Your task to perform on an android device: add a contact Image 0: 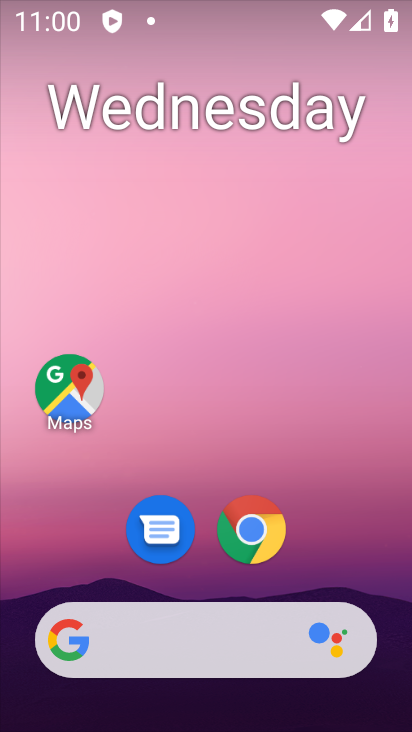
Step 0: drag from (387, 592) to (392, 239)
Your task to perform on an android device: add a contact Image 1: 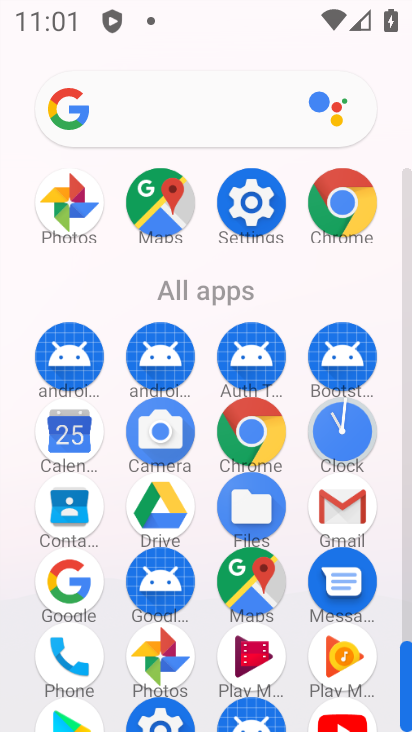
Step 1: click (75, 523)
Your task to perform on an android device: add a contact Image 2: 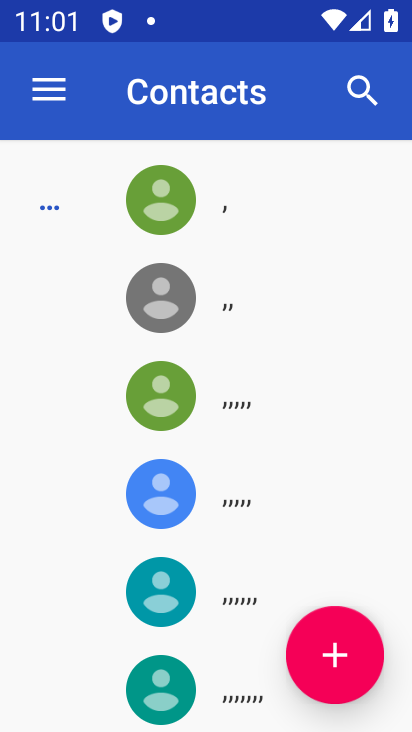
Step 2: click (329, 653)
Your task to perform on an android device: add a contact Image 3: 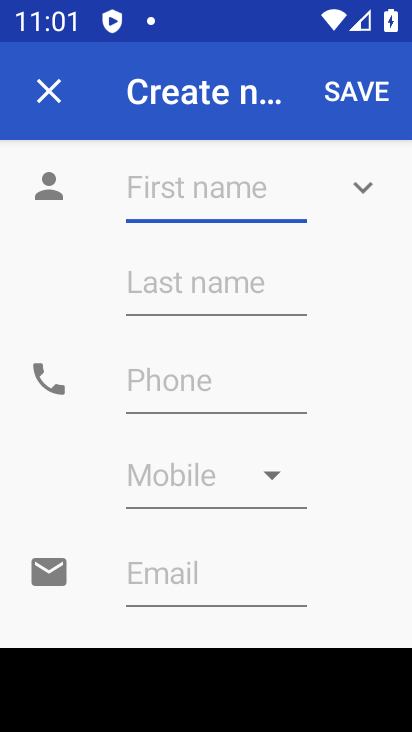
Step 3: click (201, 192)
Your task to perform on an android device: add a contact Image 4: 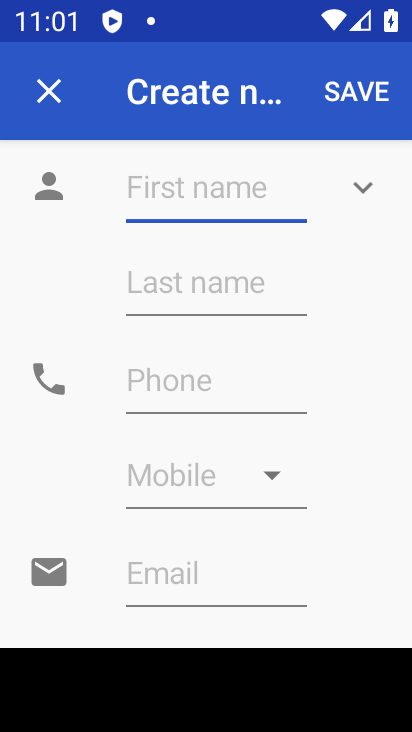
Step 4: type "v irus"
Your task to perform on an android device: add a contact Image 5: 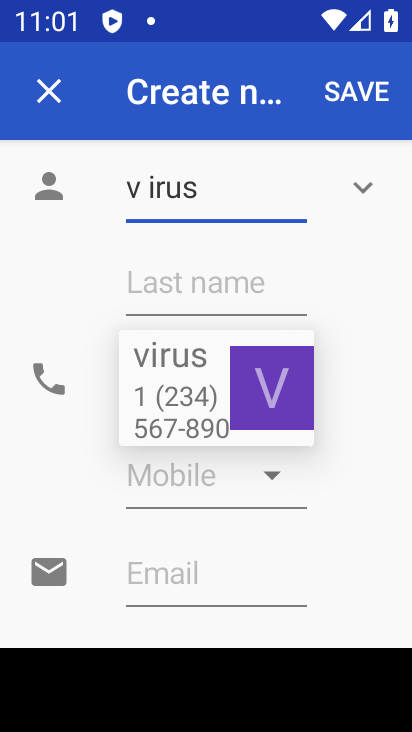
Step 5: click (367, 304)
Your task to perform on an android device: add a contact Image 6: 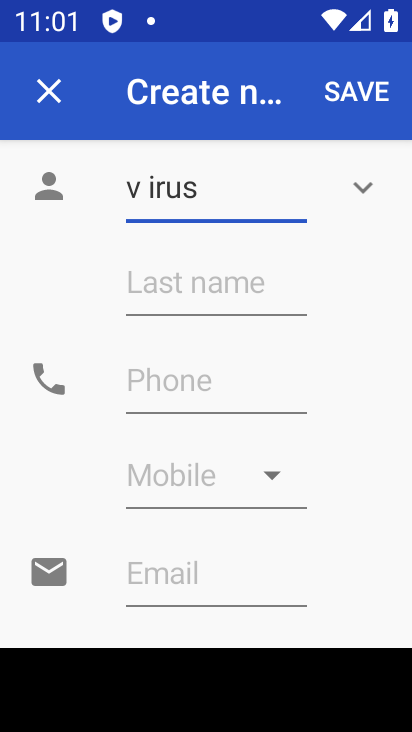
Step 6: click (252, 394)
Your task to perform on an android device: add a contact Image 7: 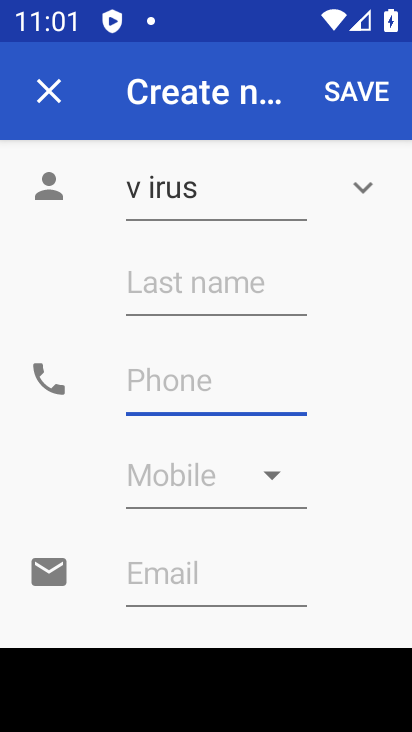
Step 7: type "12345678"
Your task to perform on an android device: add a contact Image 8: 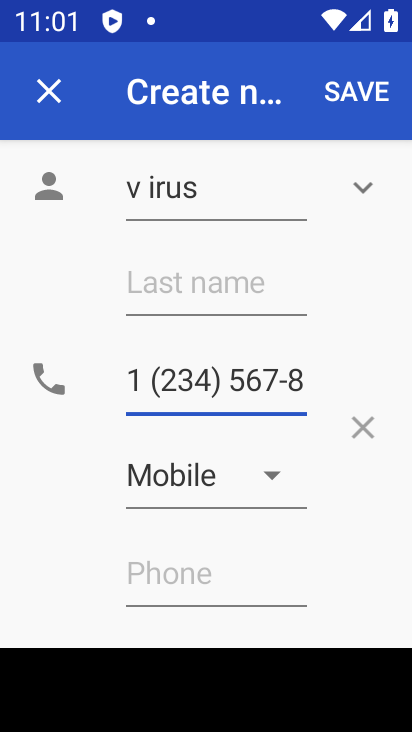
Step 8: click (355, 106)
Your task to perform on an android device: add a contact Image 9: 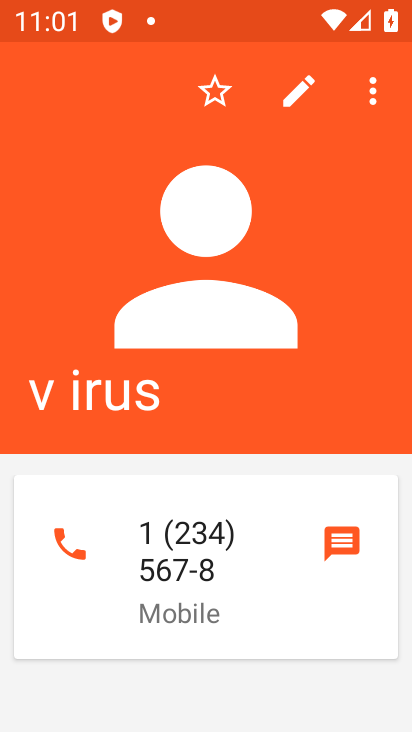
Step 9: task complete